Your task to perform on an android device: Go to sound settings Image 0: 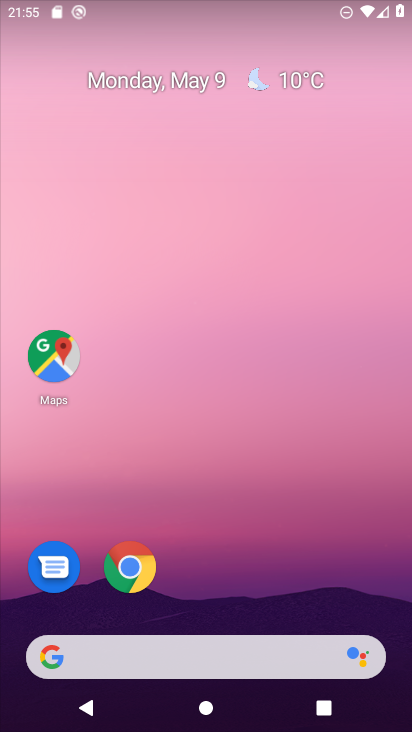
Step 0: drag from (303, 507) to (329, 54)
Your task to perform on an android device: Go to sound settings Image 1: 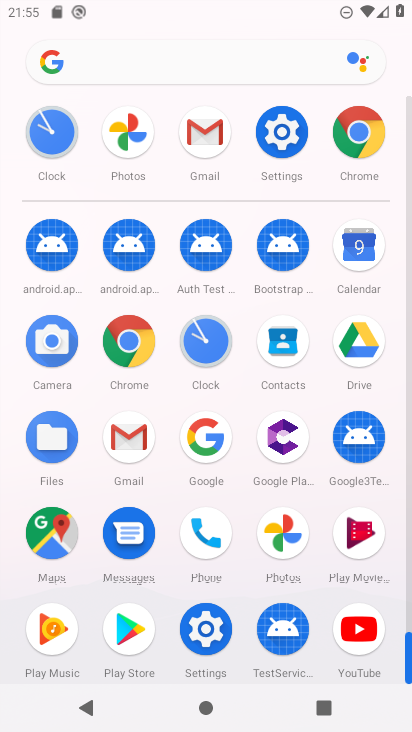
Step 1: click (277, 135)
Your task to perform on an android device: Go to sound settings Image 2: 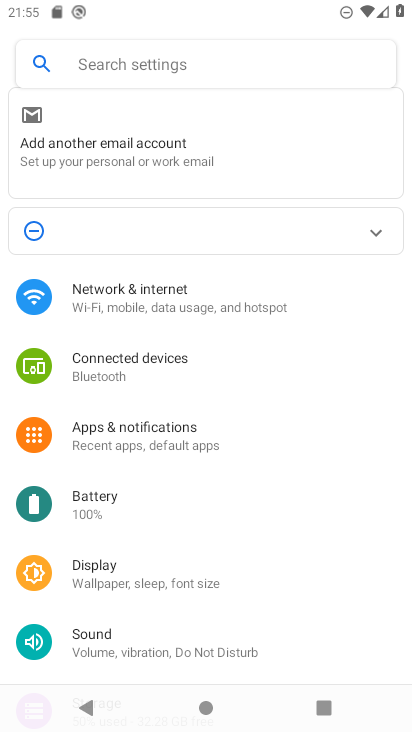
Step 2: click (148, 643)
Your task to perform on an android device: Go to sound settings Image 3: 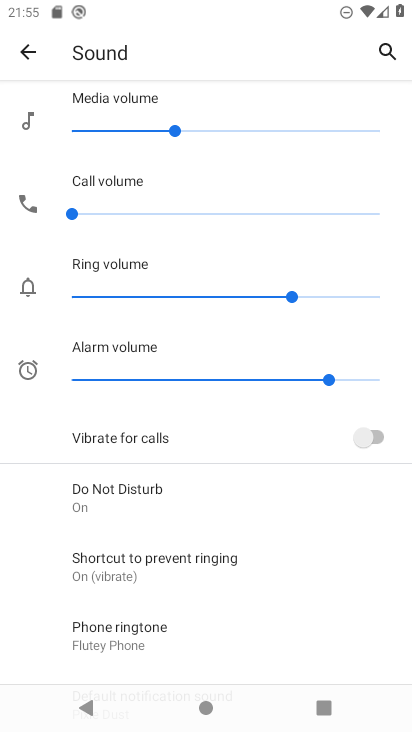
Step 3: task complete